Your task to perform on an android device: See recent photos Image 0: 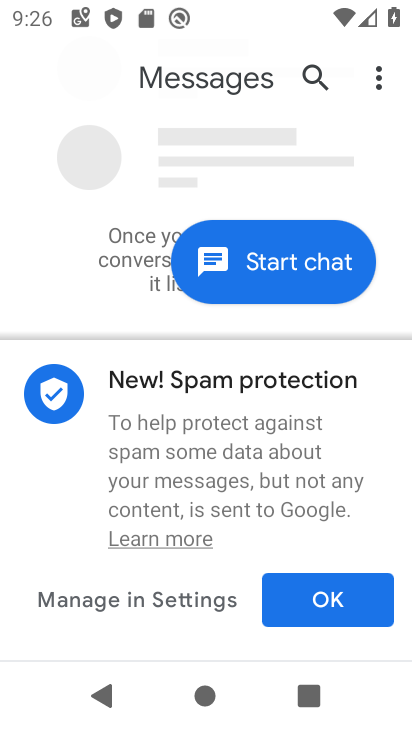
Step 0: press home button
Your task to perform on an android device: See recent photos Image 1: 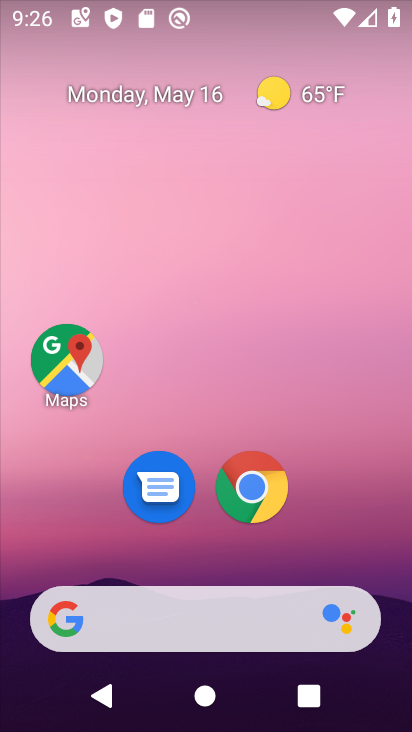
Step 1: drag from (351, 538) to (349, 105)
Your task to perform on an android device: See recent photos Image 2: 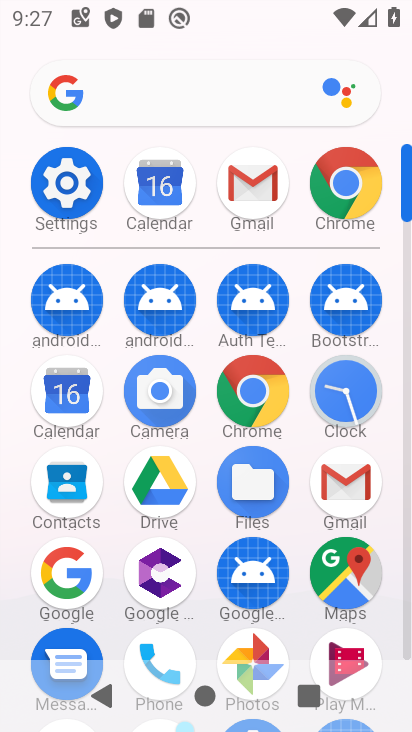
Step 2: drag from (206, 538) to (213, 345)
Your task to perform on an android device: See recent photos Image 3: 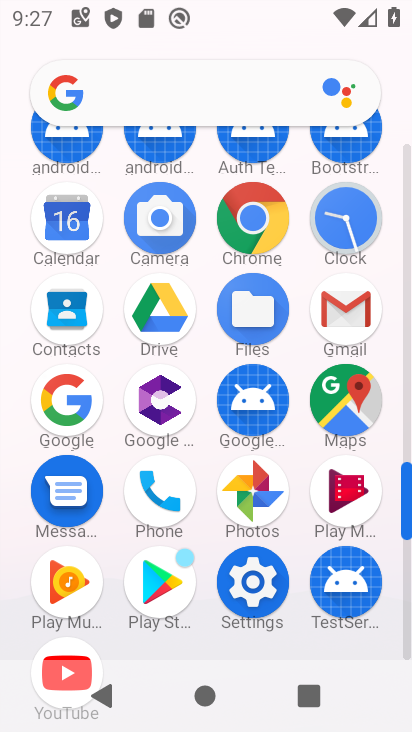
Step 3: click (251, 500)
Your task to perform on an android device: See recent photos Image 4: 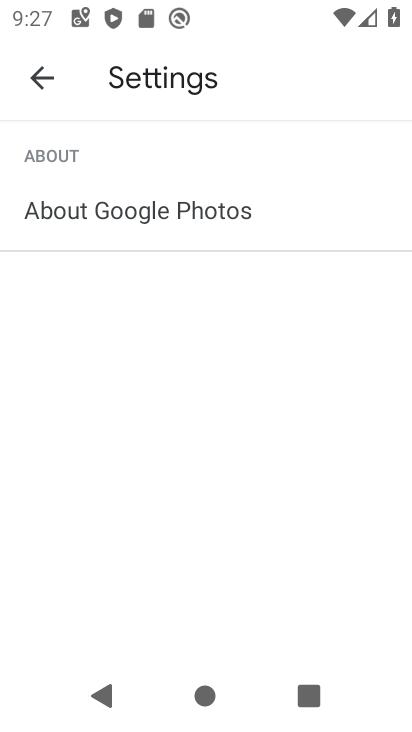
Step 4: click (48, 71)
Your task to perform on an android device: See recent photos Image 5: 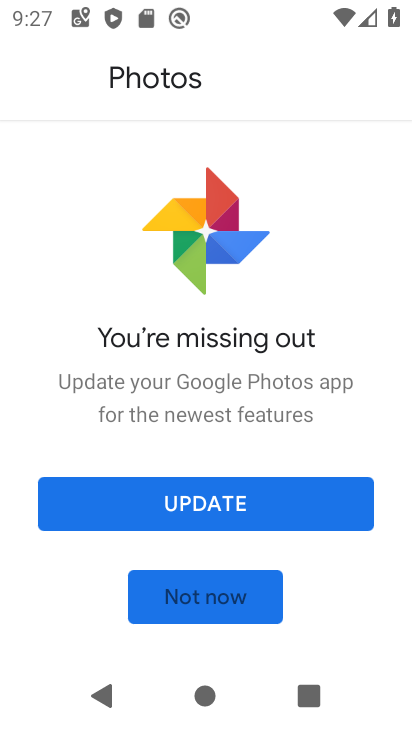
Step 5: click (216, 516)
Your task to perform on an android device: See recent photos Image 6: 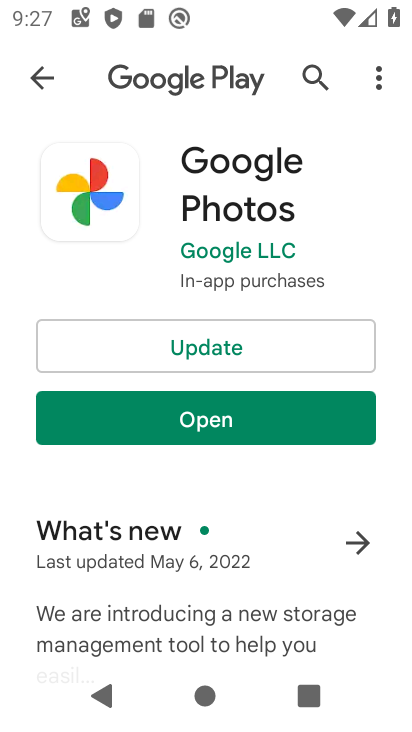
Step 6: click (232, 339)
Your task to perform on an android device: See recent photos Image 7: 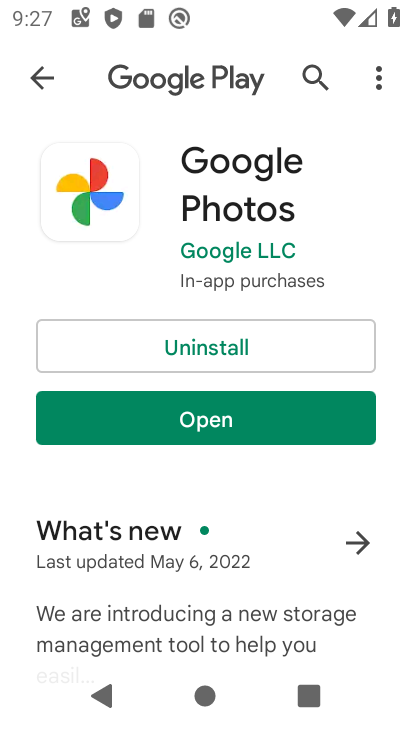
Step 7: click (263, 418)
Your task to perform on an android device: See recent photos Image 8: 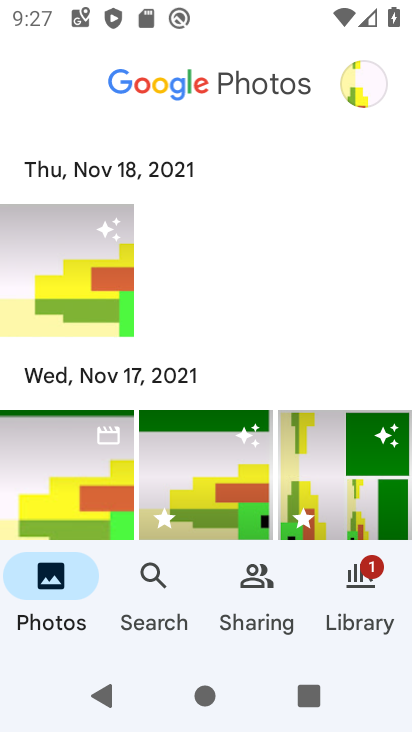
Step 8: click (73, 278)
Your task to perform on an android device: See recent photos Image 9: 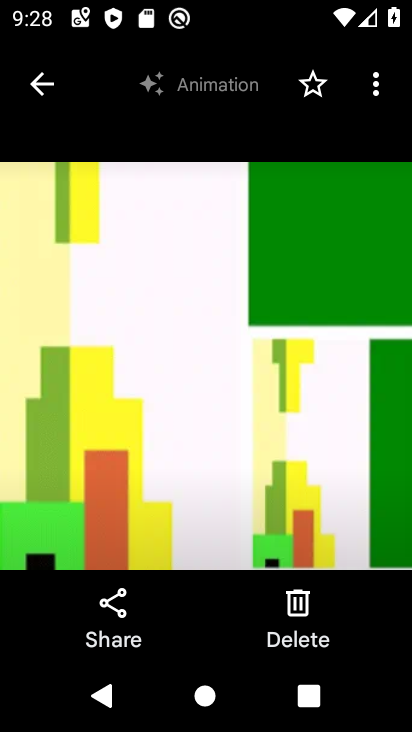
Step 9: task complete